Your task to perform on an android device: Go to Android settings Image 0: 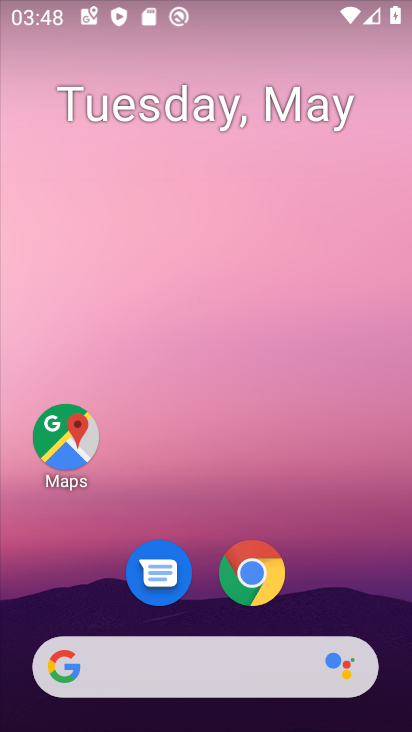
Step 0: drag from (264, 483) to (260, 137)
Your task to perform on an android device: Go to Android settings Image 1: 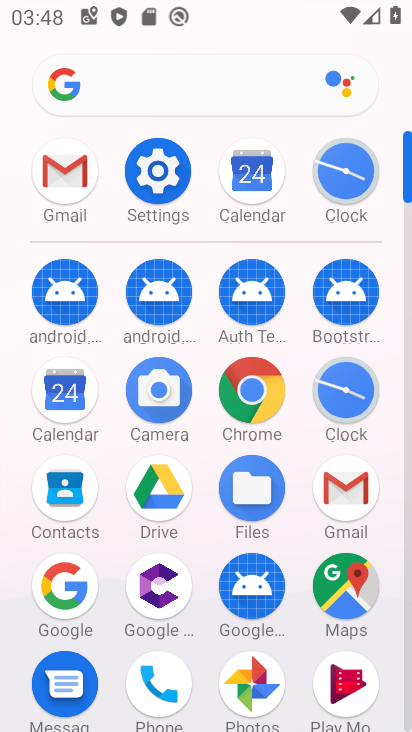
Step 1: click (154, 173)
Your task to perform on an android device: Go to Android settings Image 2: 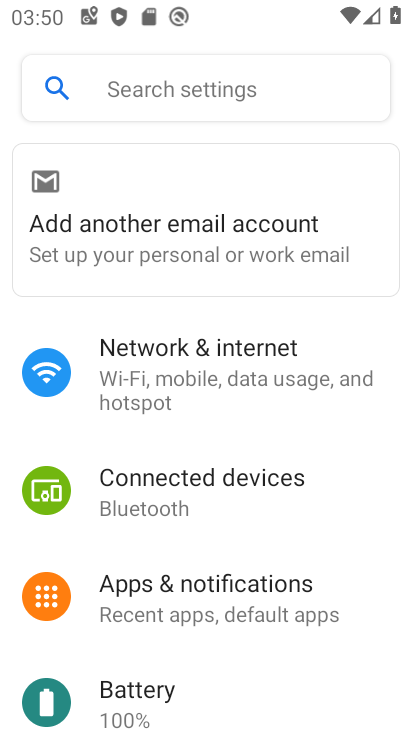
Step 2: drag from (179, 681) to (257, 74)
Your task to perform on an android device: Go to Android settings Image 3: 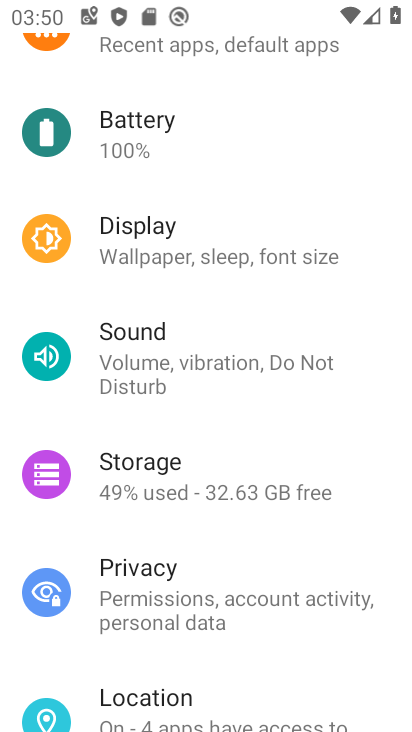
Step 3: drag from (162, 659) to (237, 143)
Your task to perform on an android device: Go to Android settings Image 4: 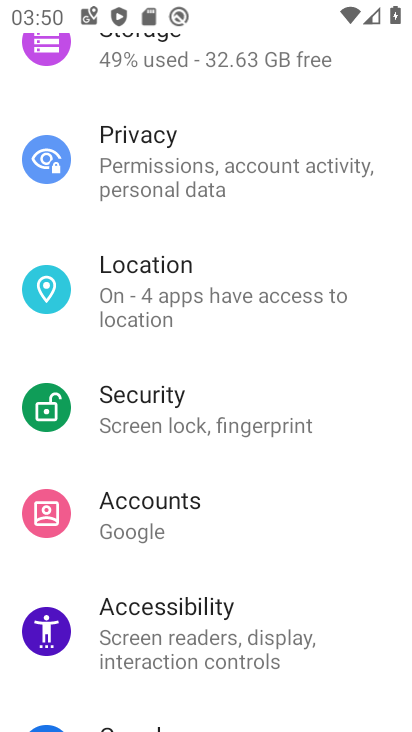
Step 4: drag from (124, 623) to (250, 66)
Your task to perform on an android device: Go to Android settings Image 5: 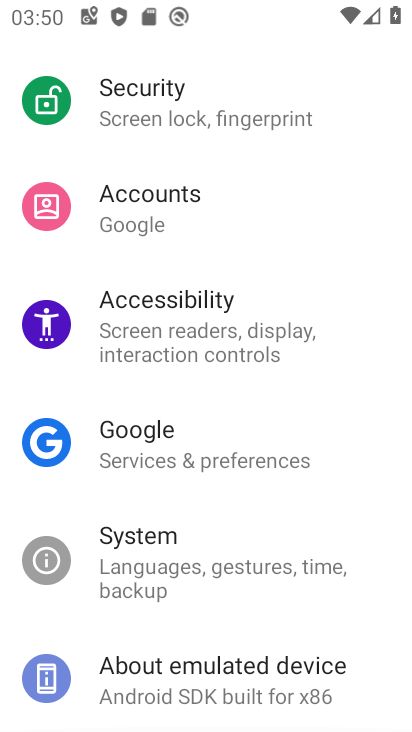
Step 5: drag from (227, 619) to (337, 202)
Your task to perform on an android device: Go to Android settings Image 6: 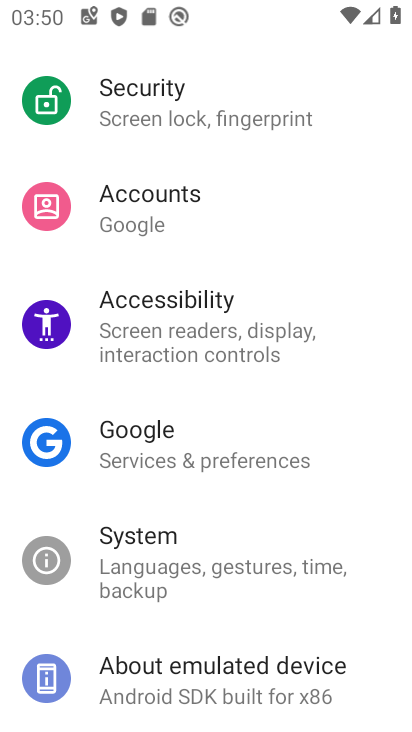
Step 6: drag from (138, 683) to (252, 167)
Your task to perform on an android device: Go to Android settings Image 7: 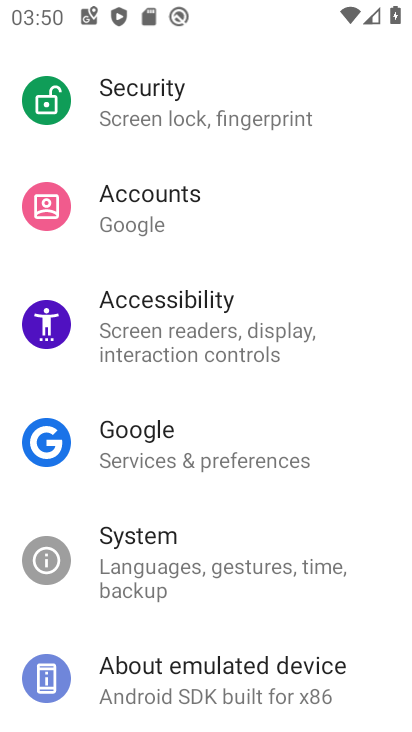
Step 7: click (188, 674)
Your task to perform on an android device: Go to Android settings Image 8: 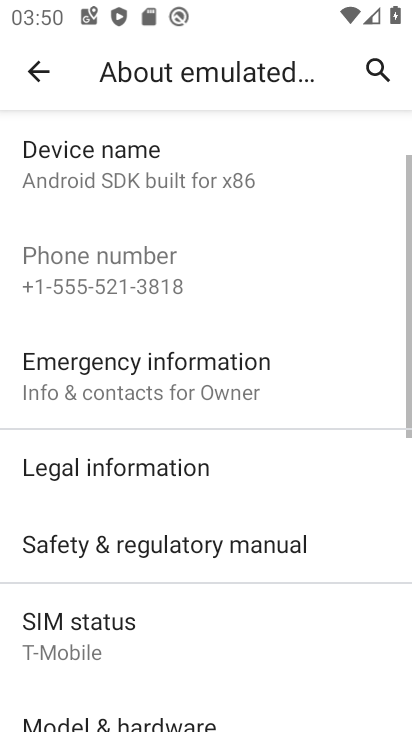
Step 8: drag from (194, 576) to (289, 172)
Your task to perform on an android device: Go to Android settings Image 9: 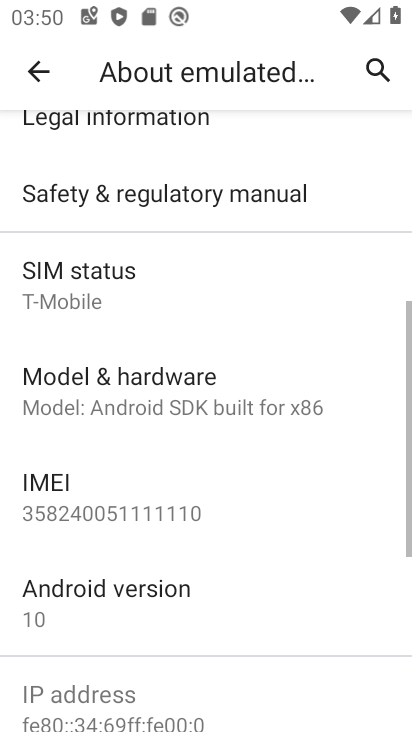
Step 9: click (140, 586)
Your task to perform on an android device: Go to Android settings Image 10: 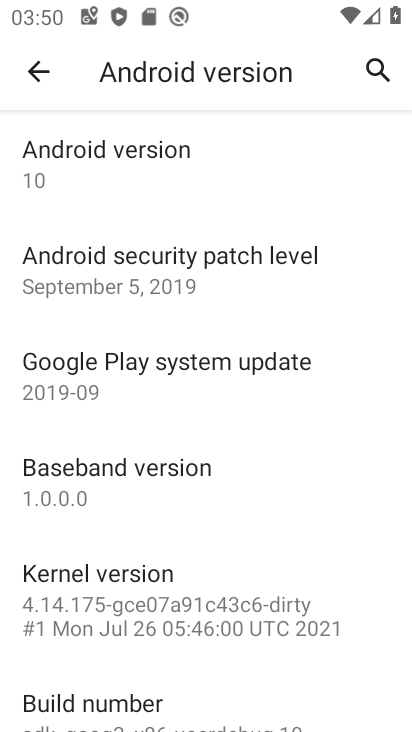
Step 10: task complete